Your task to perform on an android device: Toggle the flashlight Image 0: 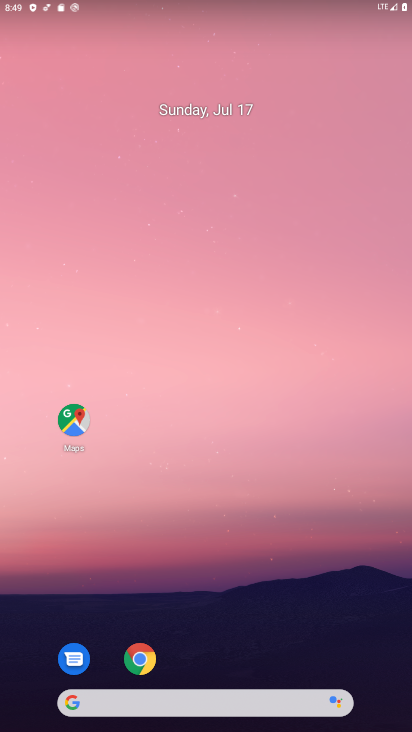
Step 0: drag from (141, 5) to (137, 542)
Your task to perform on an android device: Toggle the flashlight Image 1: 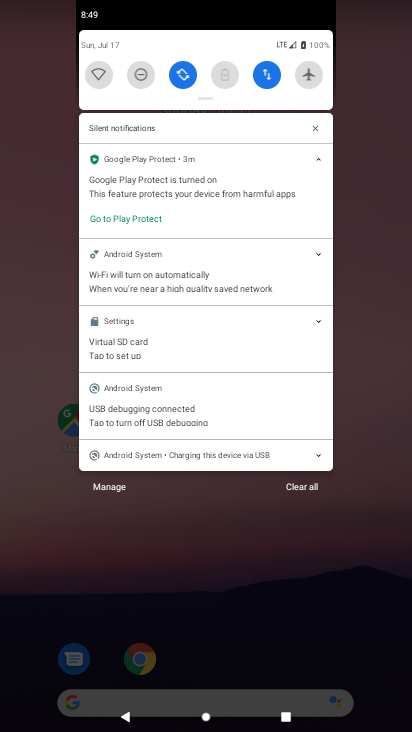
Step 1: task complete